Your task to perform on an android device: Open Android settings Image 0: 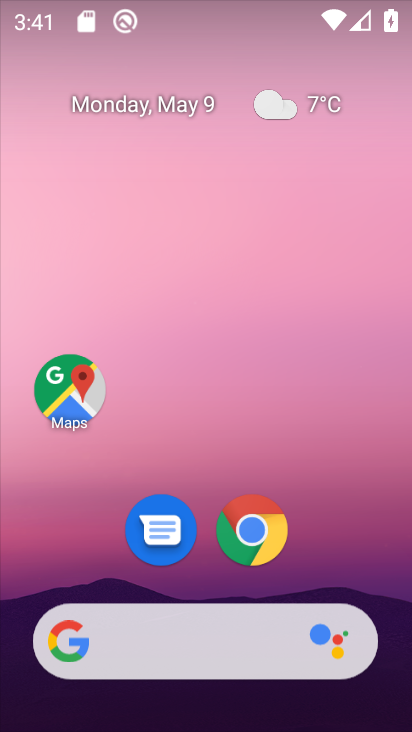
Step 0: drag from (199, 542) to (284, 145)
Your task to perform on an android device: Open Android settings Image 1: 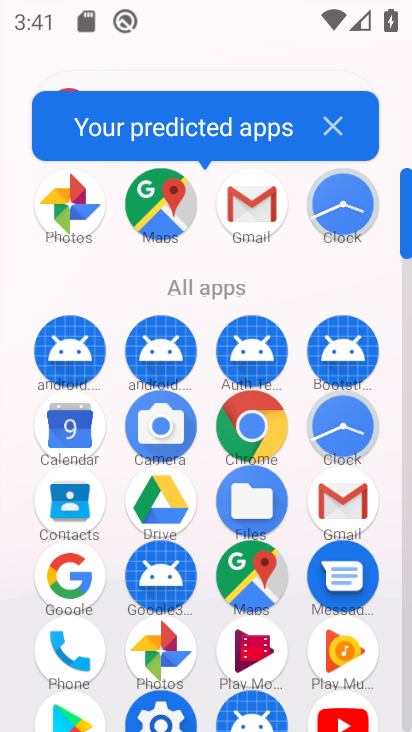
Step 1: click (157, 711)
Your task to perform on an android device: Open Android settings Image 2: 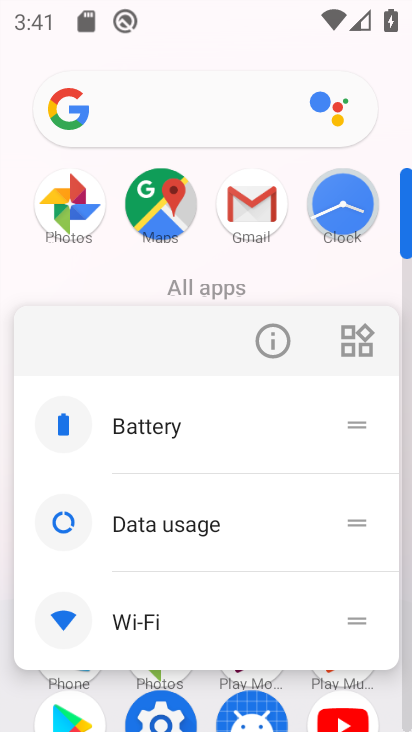
Step 2: click (168, 716)
Your task to perform on an android device: Open Android settings Image 3: 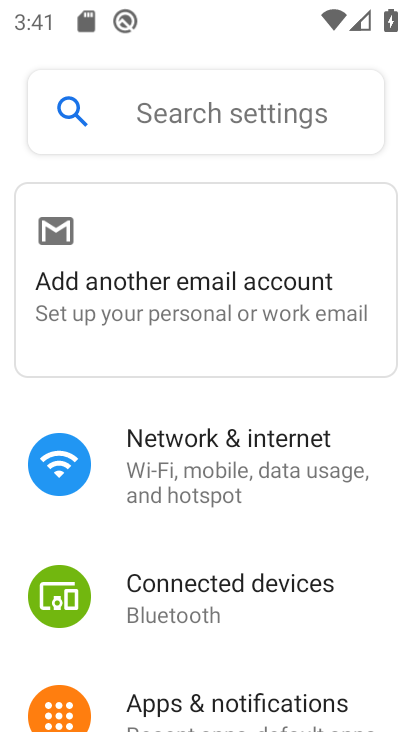
Step 3: drag from (161, 693) to (268, 72)
Your task to perform on an android device: Open Android settings Image 4: 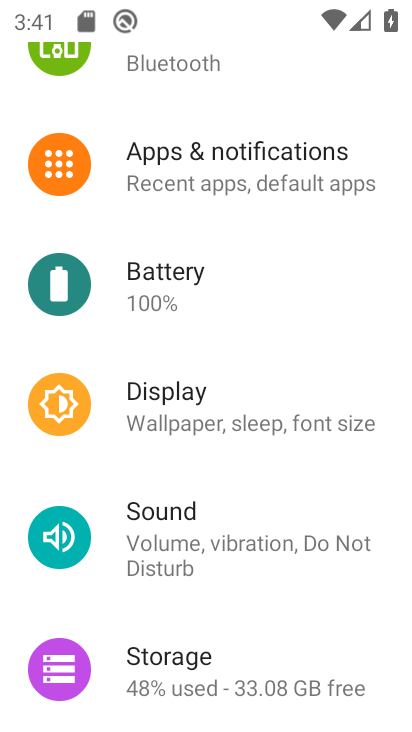
Step 4: drag from (186, 654) to (267, 38)
Your task to perform on an android device: Open Android settings Image 5: 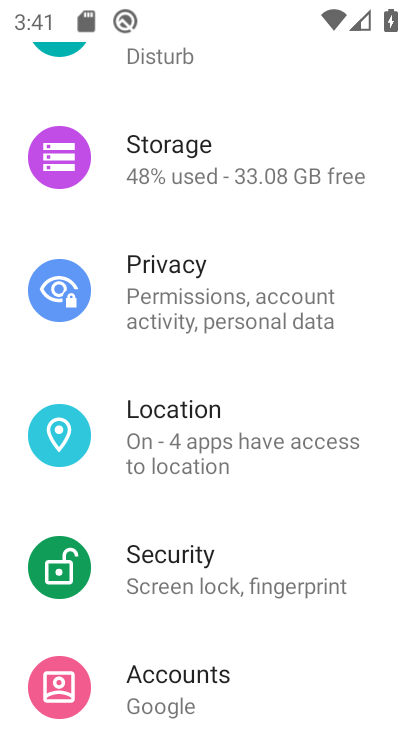
Step 5: drag from (202, 627) to (302, 6)
Your task to perform on an android device: Open Android settings Image 6: 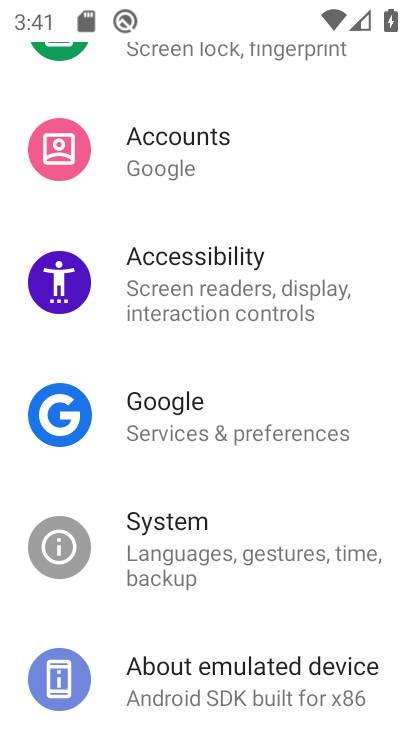
Step 6: drag from (156, 628) to (268, 113)
Your task to perform on an android device: Open Android settings Image 7: 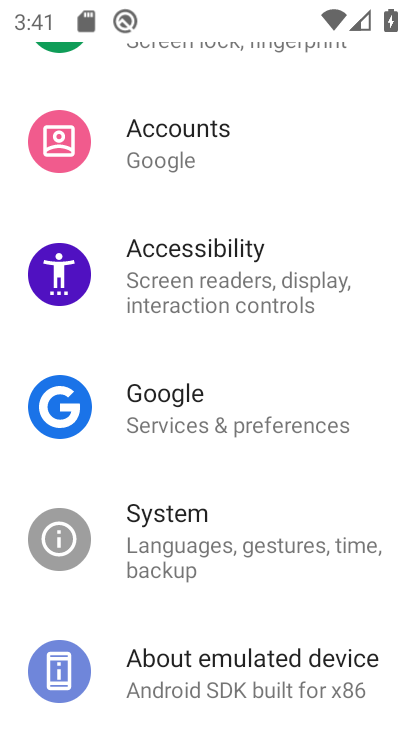
Step 7: click (218, 686)
Your task to perform on an android device: Open Android settings Image 8: 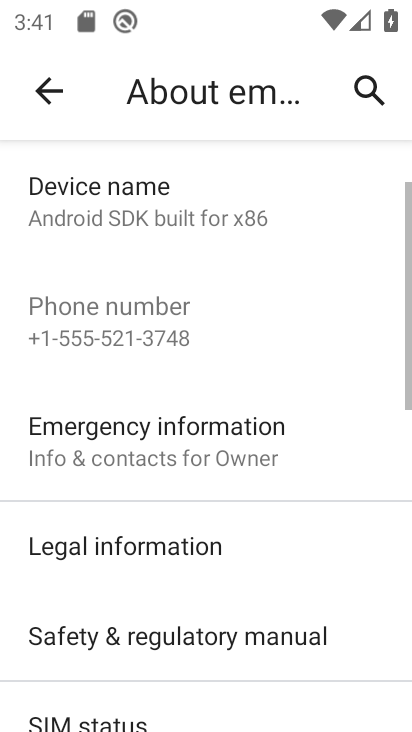
Step 8: drag from (191, 635) to (252, 68)
Your task to perform on an android device: Open Android settings Image 9: 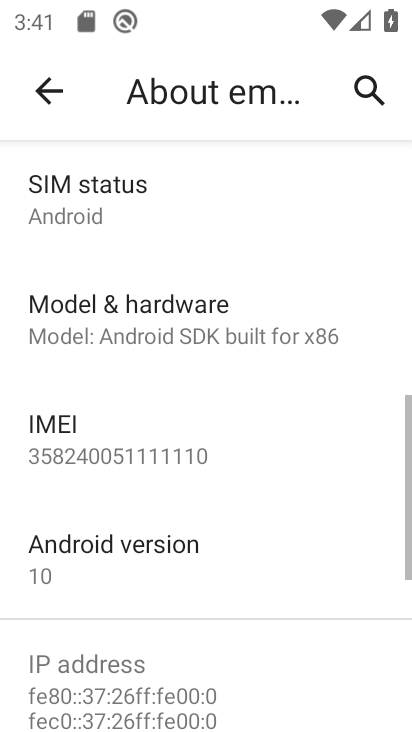
Step 9: click (139, 514)
Your task to perform on an android device: Open Android settings Image 10: 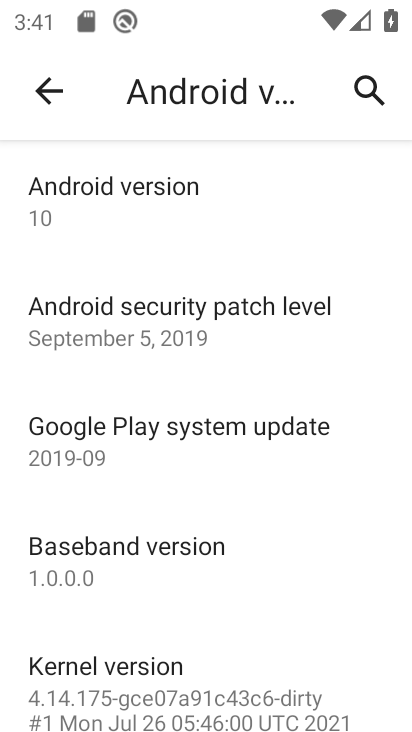
Step 10: task complete